Your task to perform on an android device: Go to internet settings Image 0: 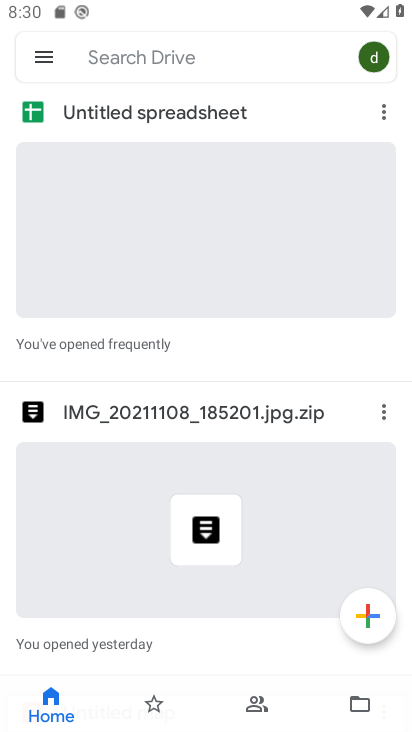
Step 0: press home button
Your task to perform on an android device: Go to internet settings Image 1: 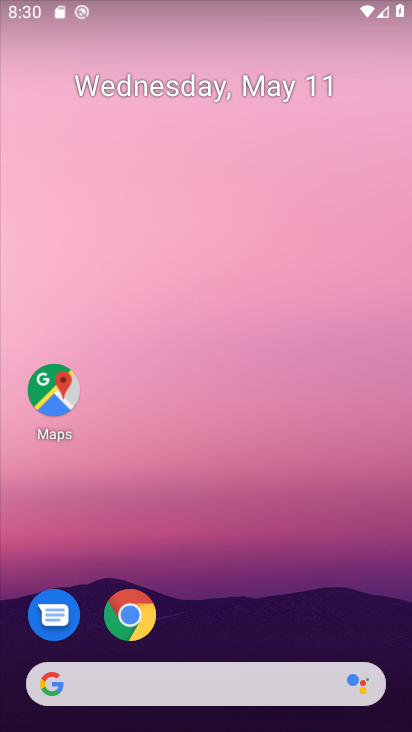
Step 1: drag from (303, 603) to (199, 74)
Your task to perform on an android device: Go to internet settings Image 2: 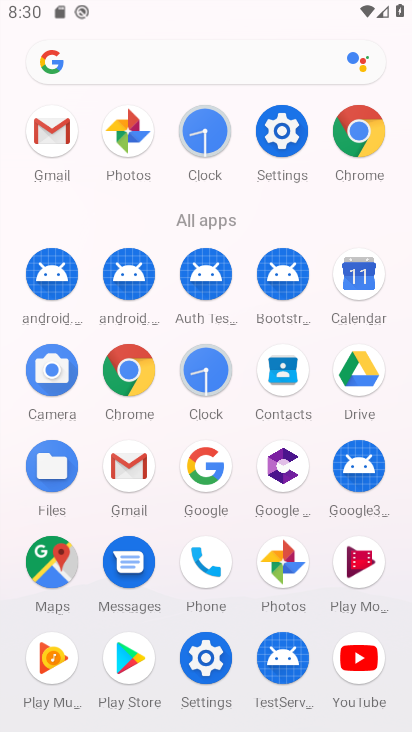
Step 2: click (287, 126)
Your task to perform on an android device: Go to internet settings Image 3: 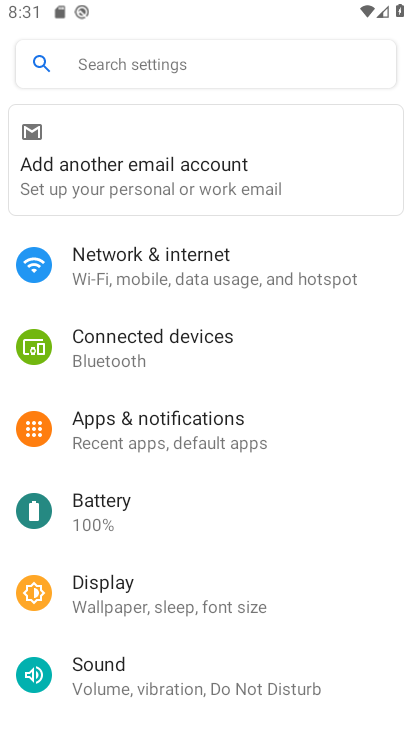
Step 3: click (177, 280)
Your task to perform on an android device: Go to internet settings Image 4: 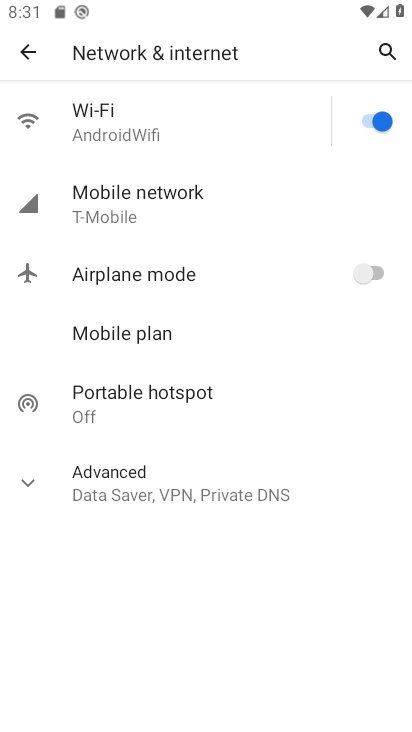
Step 4: click (164, 192)
Your task to perform on an android device: Go to internet settings Image 5: 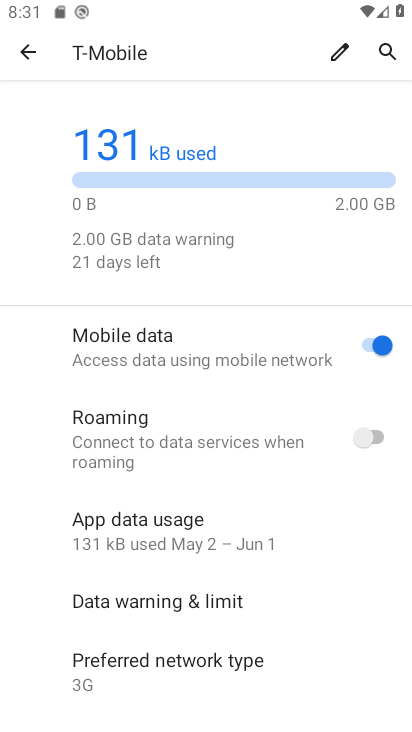
Step 5: task complete